Your task to perform on an android device: open a bookmark in the chrome app Image 0: 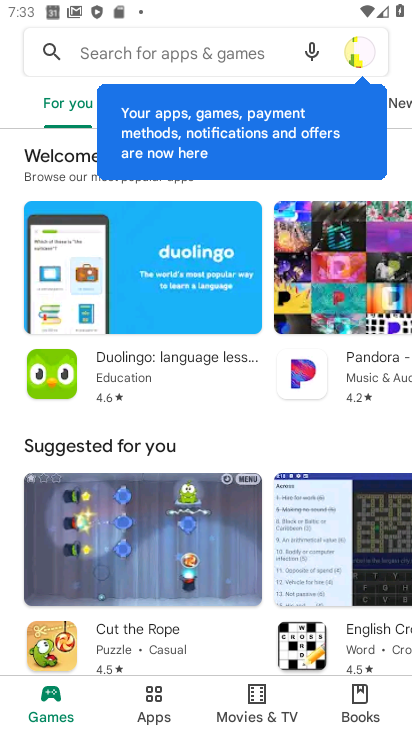
Step 0: press home button
Your task to perform on an android device: open a bookmark in the chrome app Image 1: 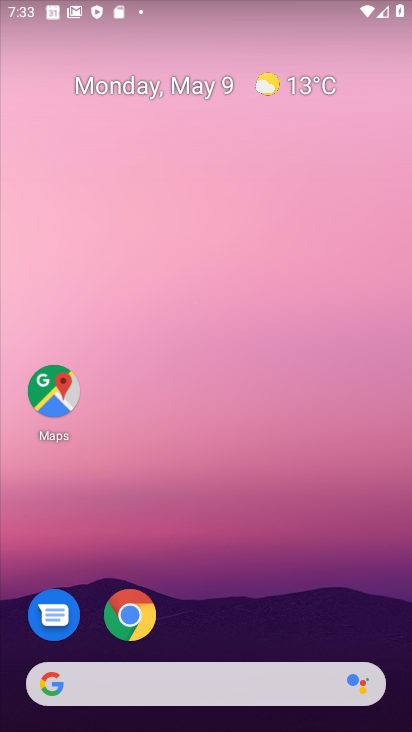
Step 1: click (129, 622)
Your task to perform on an android device: open a bookmark in the chrome app Image 2: 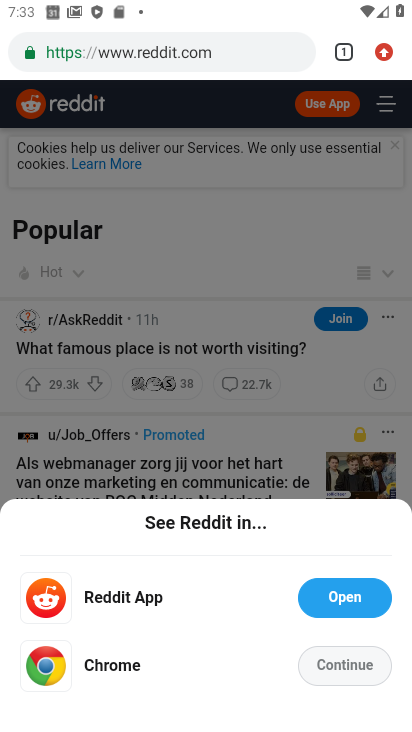
Step 2: click (392, 58)
Your task to perform on an android device: open a bookmark in the chrome app Image 3: 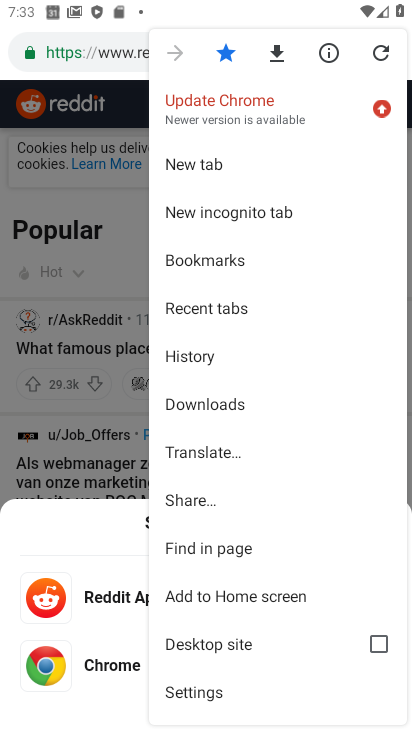
Step 3: click (176, 268)
Your task to perform on an android device: open a bookmark in the chrome app Image 4: 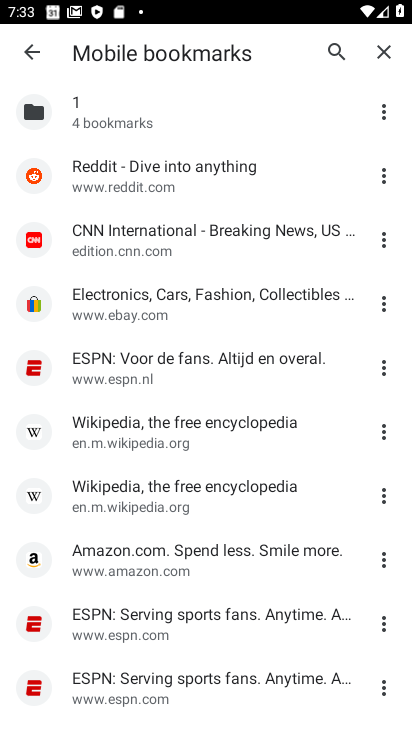
Step 4: click (176, 268)
Your task to perform on an android device: open a bookmark in the chrome app Image 5: 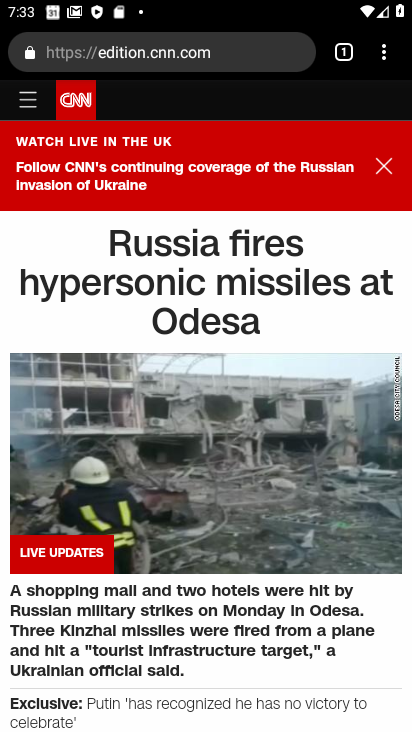
Step 5: task complete